Your task to perform on an android device: open sync settings in chrome Image 0: 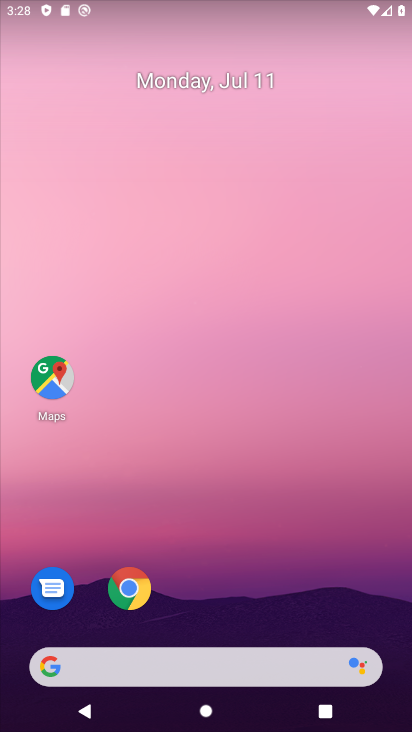
Step 0: press home button
Your task to perform on an android device: open sync settings in chrome Image 1: 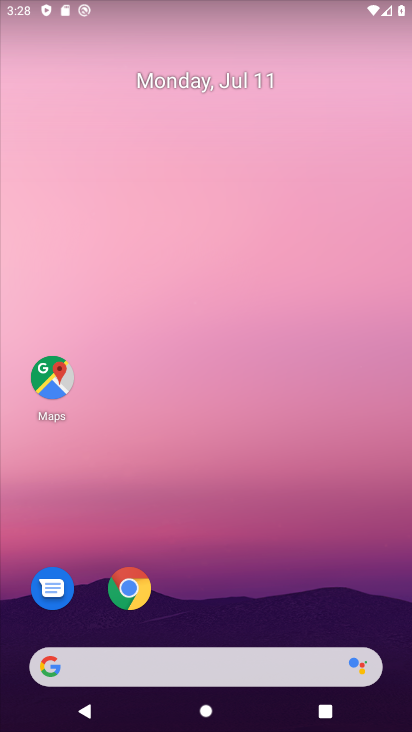
Step 1: drag from (200, 633) to (175, 162)
Your task to perform on an android device: open sync settings in chrome Image 2: 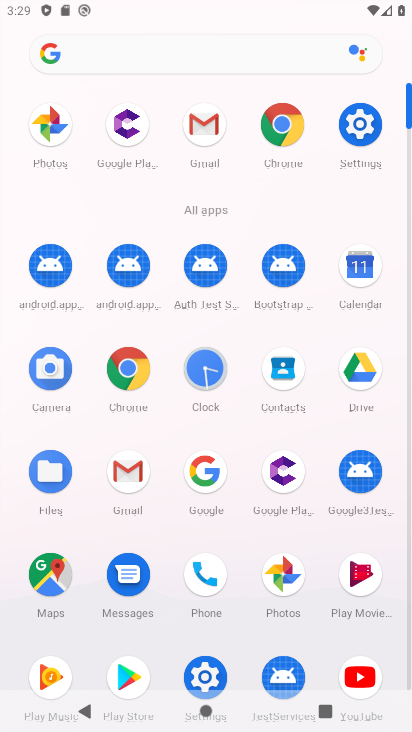
Step 2: click (286, 130)
Your task to perform on an android device: open sync settings in chrome Image 3: 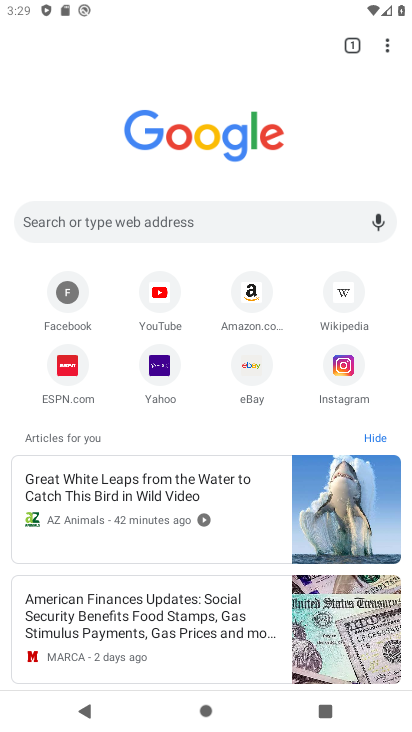
Step 3: drag from (383, 44) to (217, 378)
Your task to perform on an android device: open sync settings in chrome Image 4: 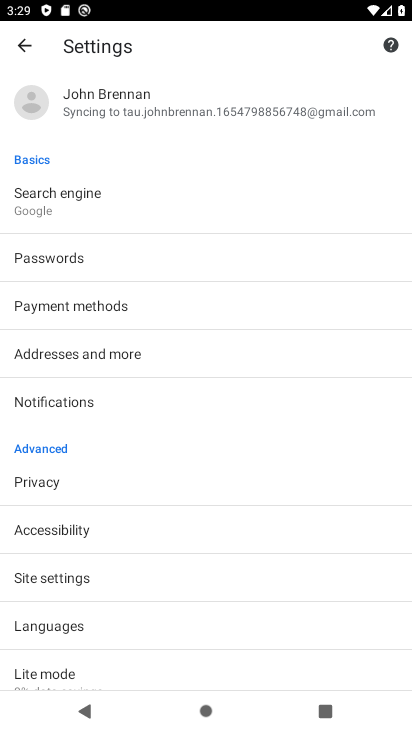
Step 4: click (138, 108)
Your task to perform on an android device: open sync settings in chrome Image 5: 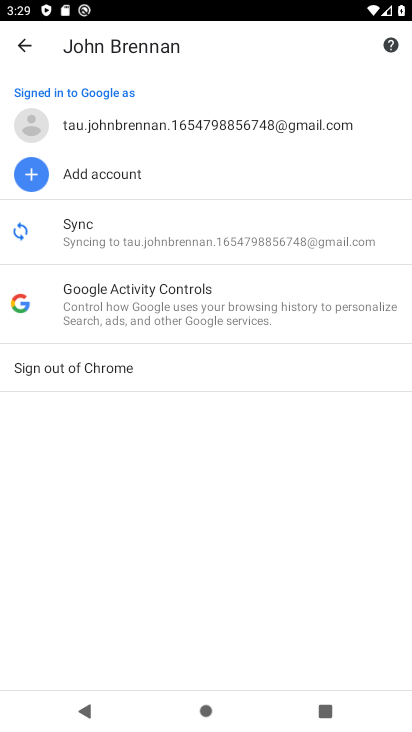
Step 5: click (85, 239)
Your task to perform on an android device: open sync settings in chrome Image 6: 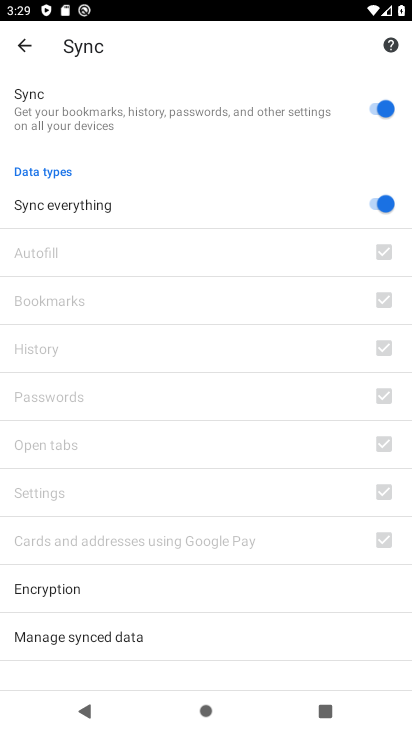
Step 6: task complete